Your task to perform on an android device: Go to Wikipedia Image 0: 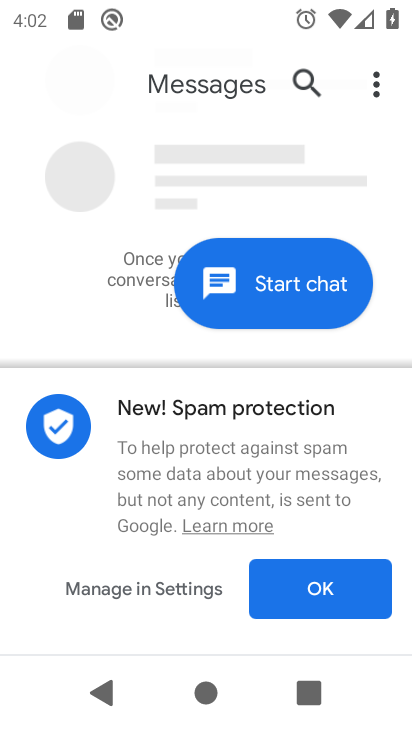
Step 0: drag from (215, 563) to (240, 187)
Your task to perform on an android device: Go to Wikipedia Image 1: 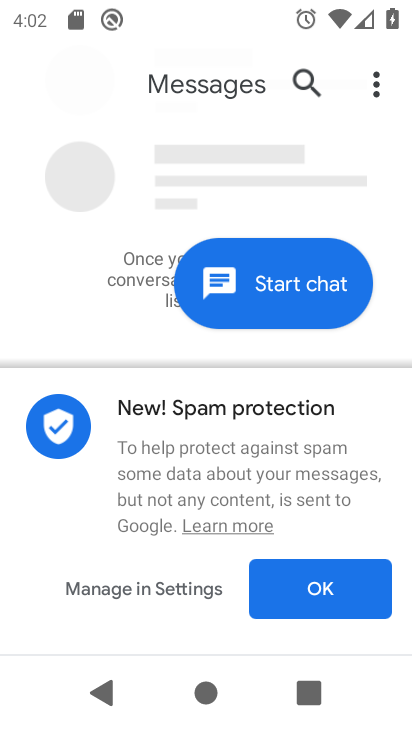
Step 1: press home button
Your task to perform on an android device: Go to Wikipedia Image 2: 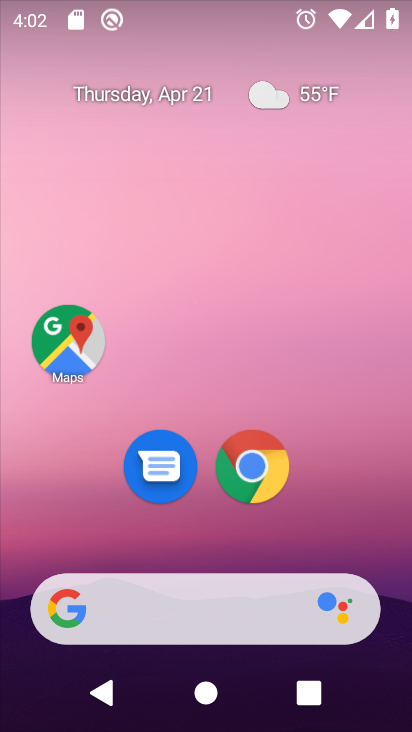
Step 2: drag from (193, 457) to (236, 102)
Your task to perform on an android device: Go to Wikipedia Image 3: 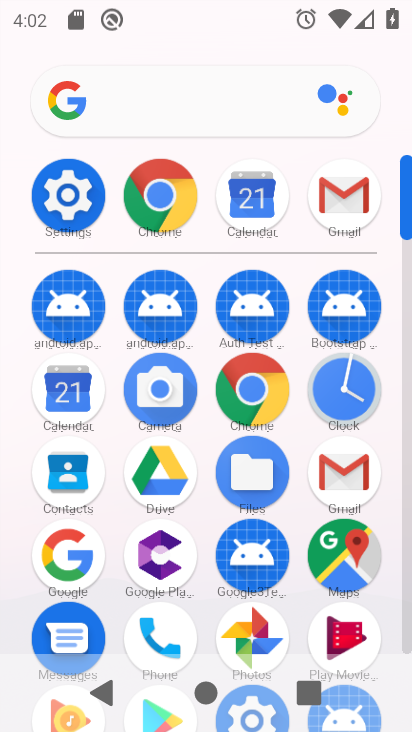
Step 3: click (81, 191)
Your task to perform on an android device: Go to Wikipedia Image 4: 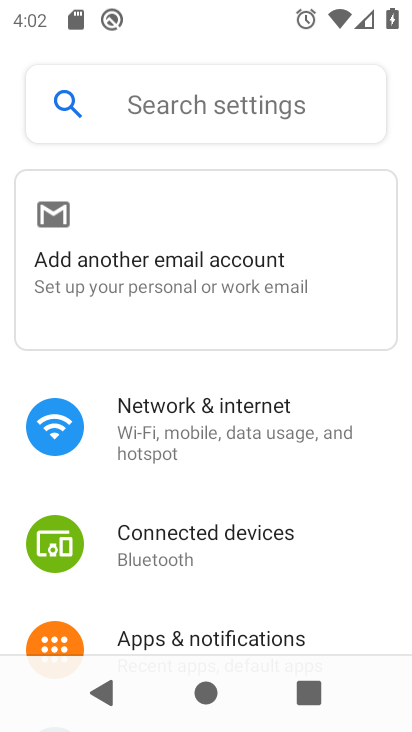
Step 4: drag from (219, 525) to (240, 60)
Your task to perform on an android device: Go to Wikipedia Image 5: 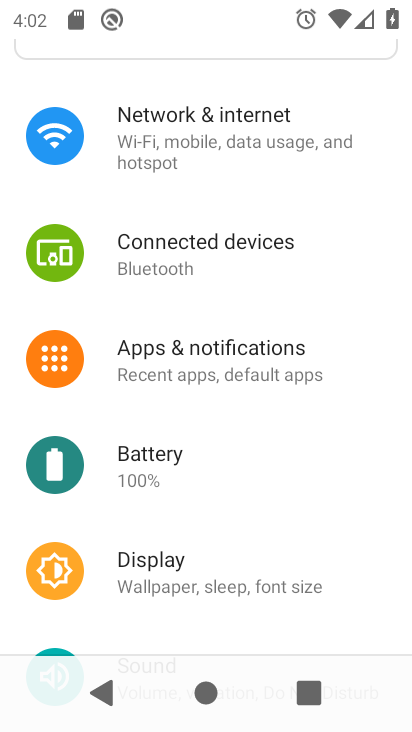
Step 5: drag from (210, 486) to (218, 64)
Your task to perform on an android device: Go to Wikipedia Image 6: 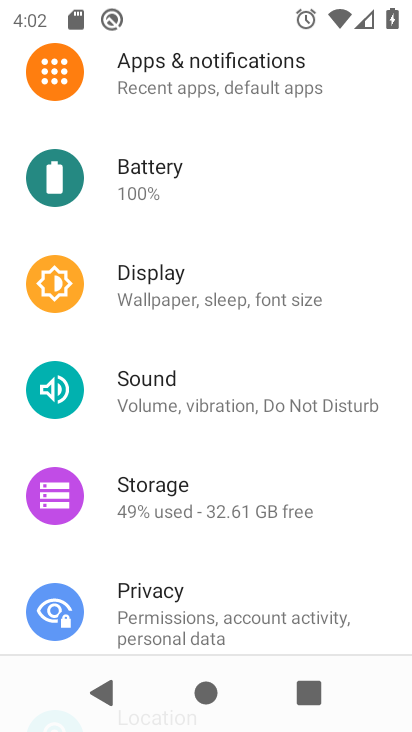
Step 6: drag from (211, 533) to (218, 112)
Your task to perform on an android device: Go to Wikipedia Image 7: 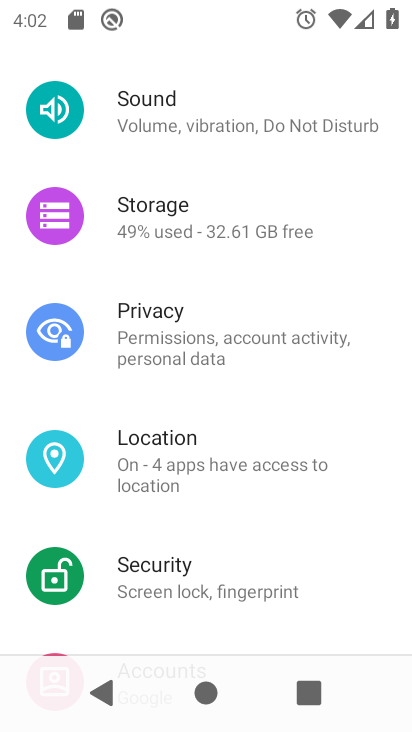
Step 7: click (238, 493)
Your task to perform on an android device: Go to Wikipedia Image 8: 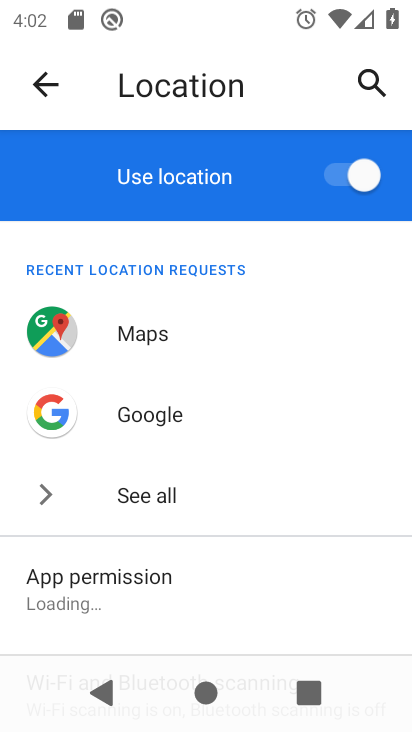
Step 8: drag from (253, 563) to (282, 109)
Your task to perform on an android device: Go to Wikipedia Image 9: 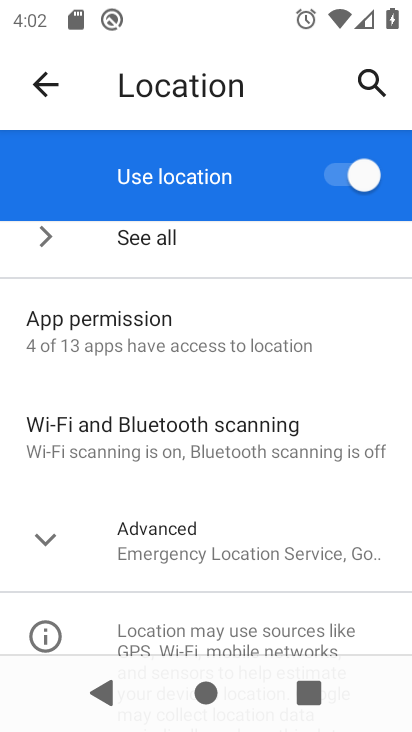
Step 9: drag from (271, 546) to (282, 181)
Your task to perform on an android device: Go to Wikipedia Image 10: 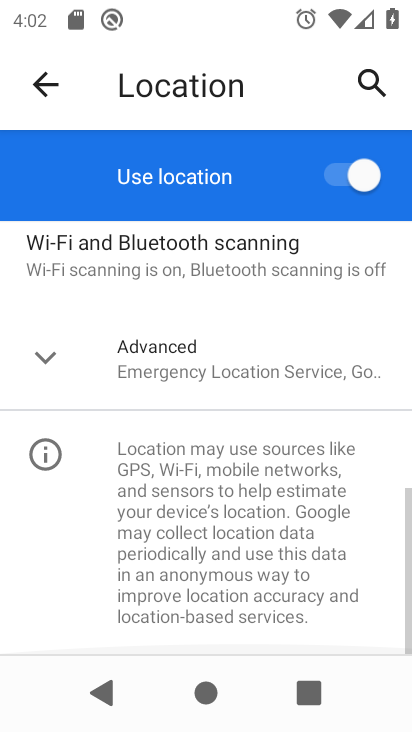
Step 10: click (256, 375)
Your task to perform on an android device: Go to Wikipedia Image 11: 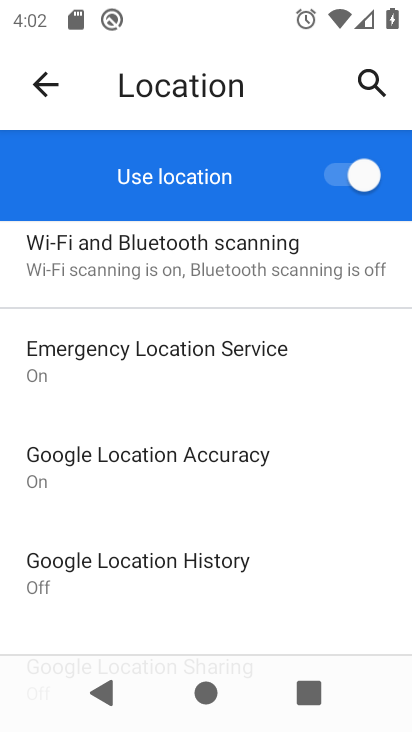
Step 11: click (209, 538)
Your task to perform on an android device: Go to Wikipedia Image 12: 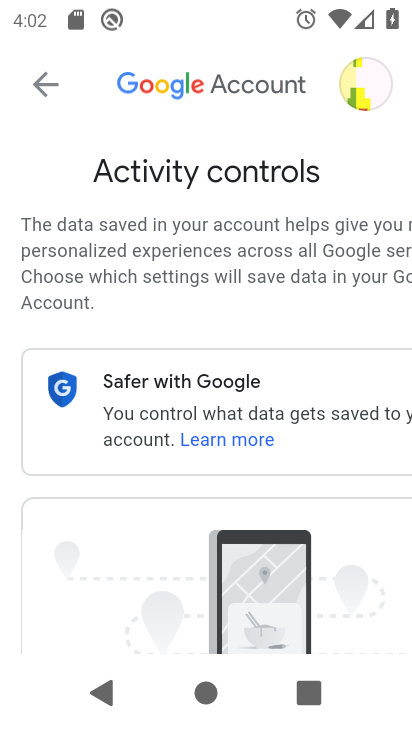
Step 12: drag from (161, 534) to (216, 121)
Your task to perform on an android device: Go to Wikipedia Image 13: 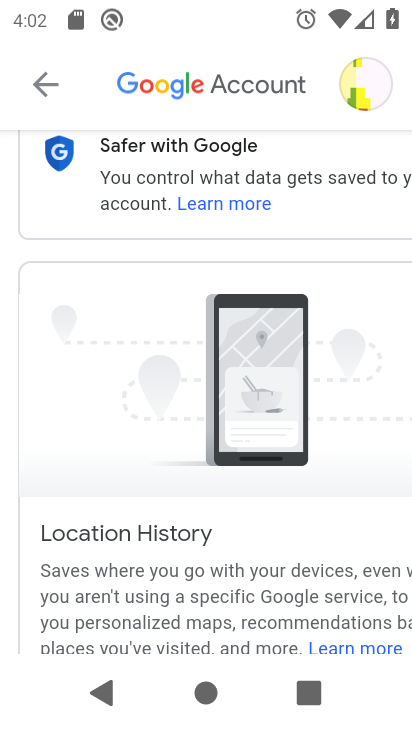
Step 13: drag from (229, 513) to (253, 85)
Your task to perform on an android device: Go to Wikipedia Image 14: 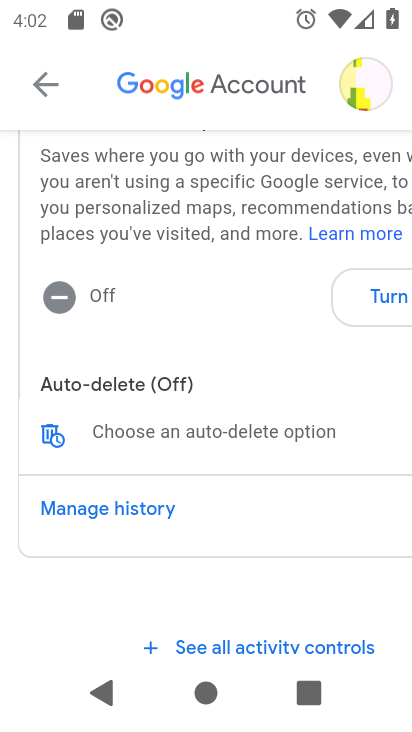
Step 14: click (374, 312)
Your task to perform on an android device: Go to Wikipedia Image 15: 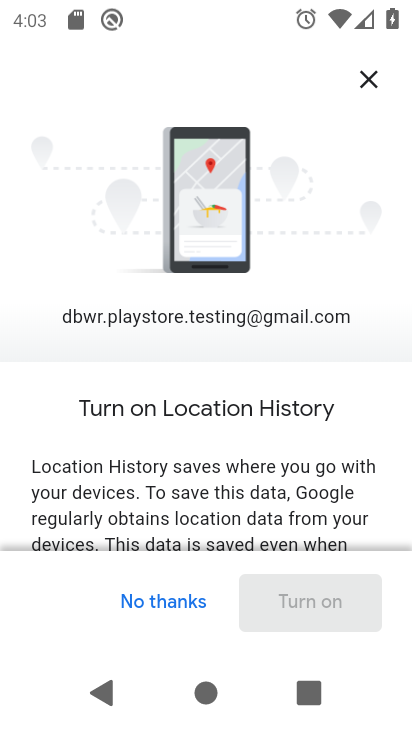
Step 15: drag from (242, 515) to (319, 15)
Your task to perform on an android device: Go to Wikipedia Image 16: 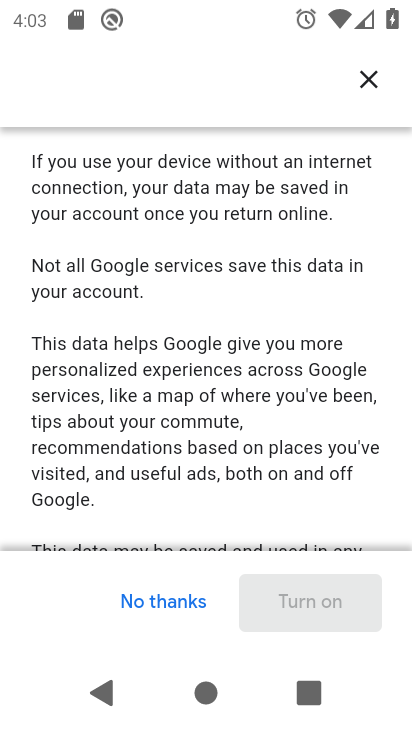
Step 16: drag from (271, 445) to (259, 18)
Your task to perform on an android device: Go to Wikipedia Image 17: 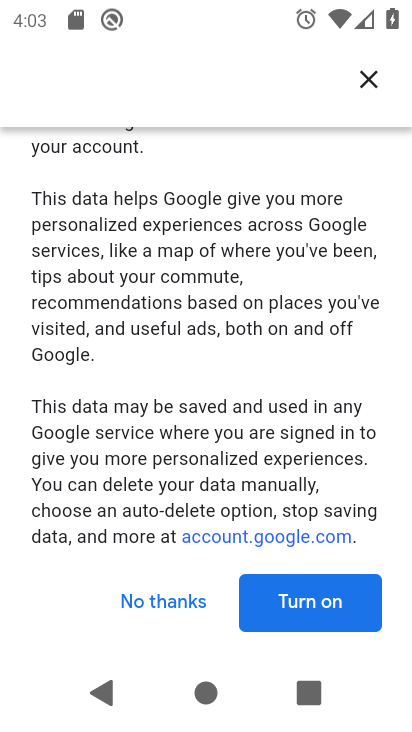
Step 17: click (325, 592)
Your task to perform on an android device: Go to Wikipedia Image 18: 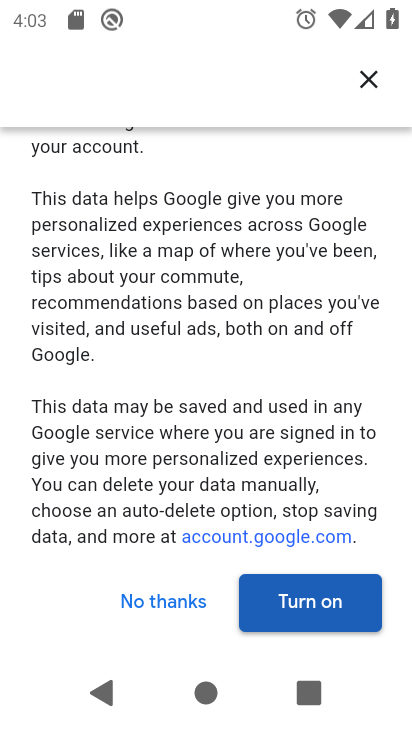
Step 18: click (358, 589)
Your task to perform on an android device: Go to Wikipedia Image 19: 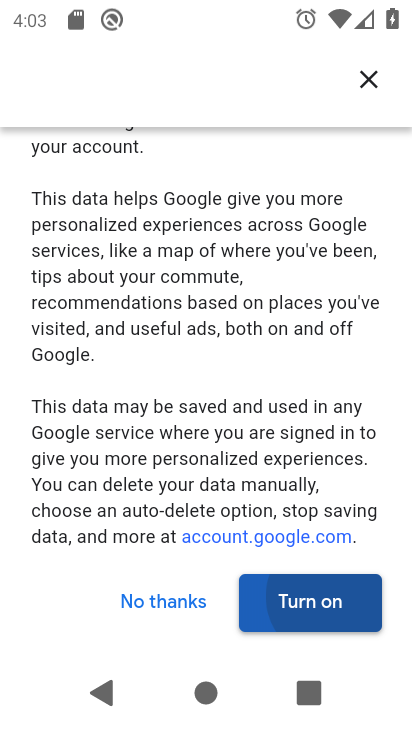
Step 19: click (358, 589)
Your task to perform on an android device: Go to Wikipedia Image 20: 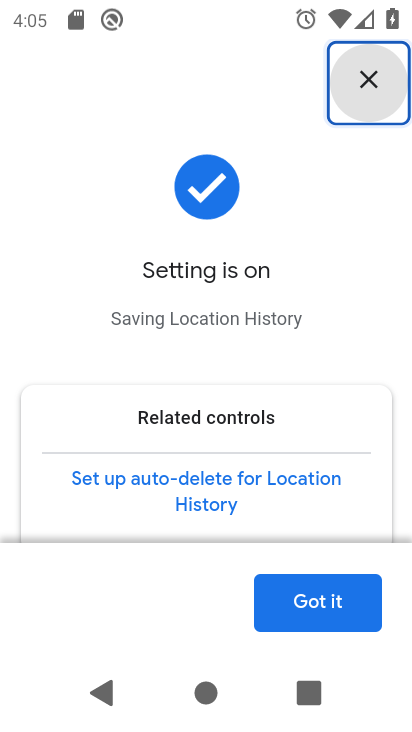
Step 20: click (315, 618)
Your task to perform on an android device: Go to Wikipedia Image 21: 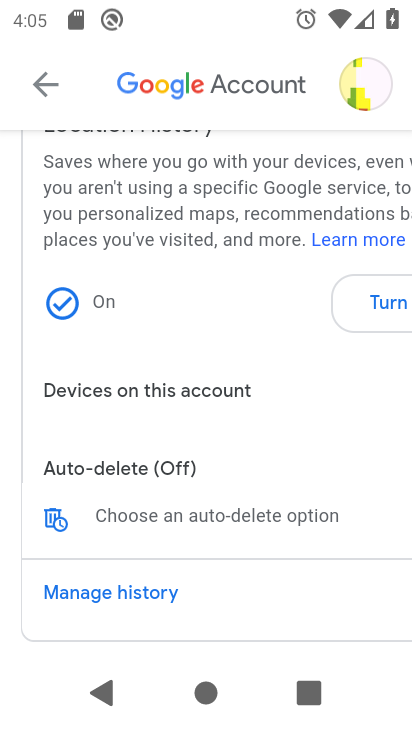
Step 21: task complete